Your task to perform on an android device: add a contact Image 0: 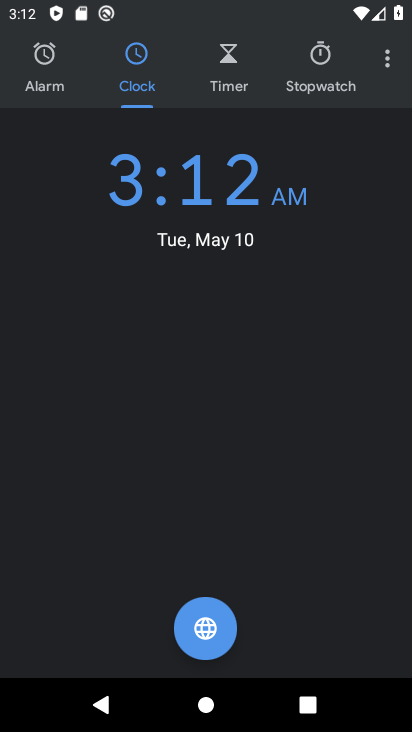
Step 0: press home button
Your task to perform on an android device: add a contact Image 1: 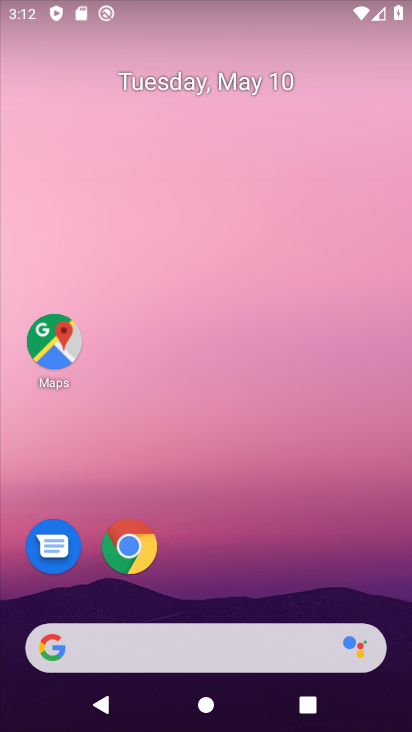
Step 1: drag from (231, 597) to (296, 42)
Your task to perform on an android device: add a contact Image 2: 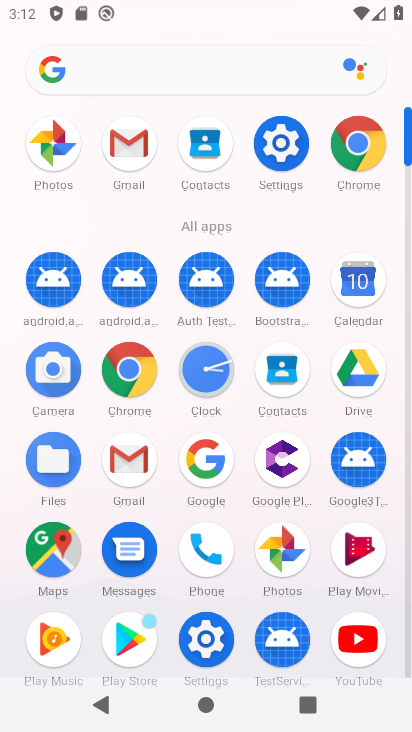
Step 2: click (289, 376)
Your task to perform on an android device: add a contact Image 3: 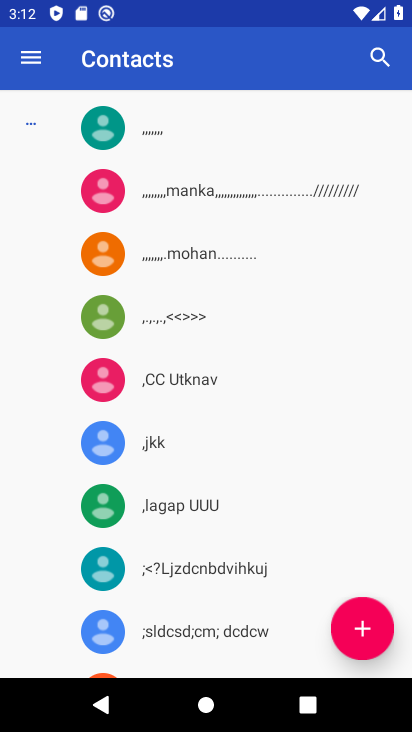
Step 3: click (370, 626)
Your task to perform on an android device: add a contact Image 4: 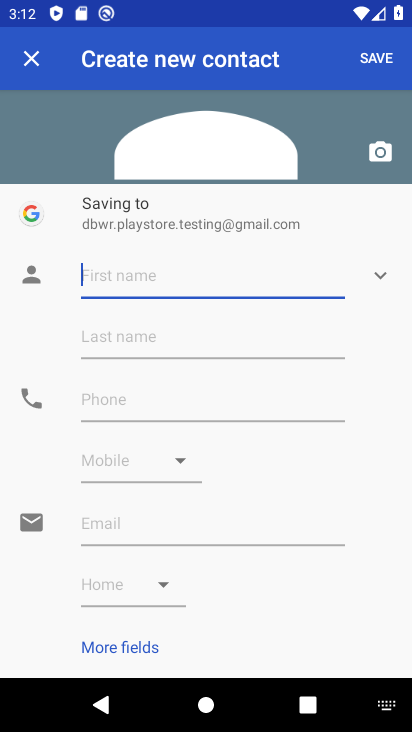
Step 4: type "dengingzoopa"
Your task to perform on an android device: add a contact Image 5: 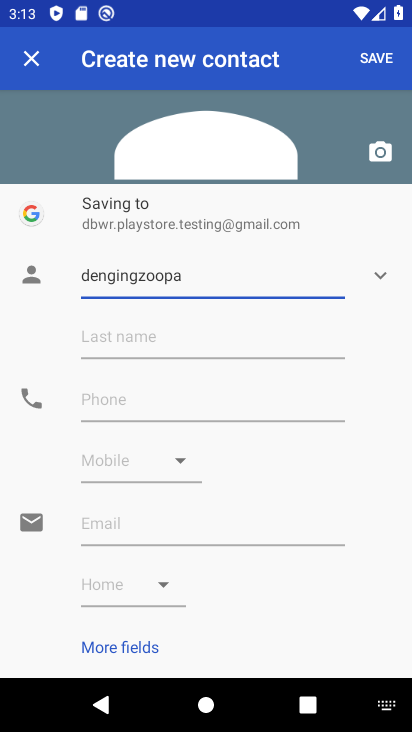
Step 5: click (377, 53)
Your task to perform on an android device: add a contact Image 6: 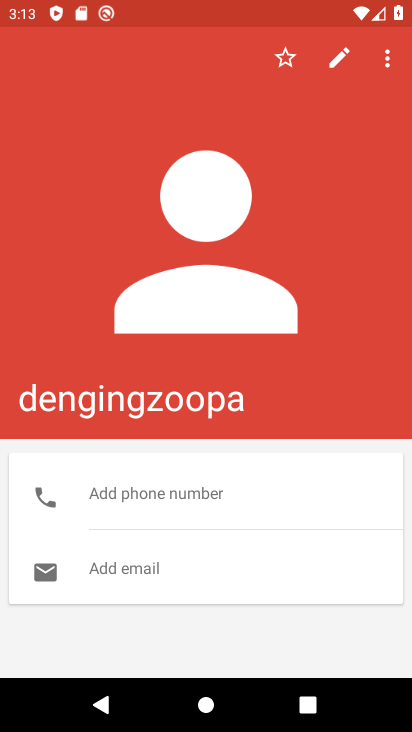
Step 6: task complete